Your task to perform on an android device: check out phone information Image 0: 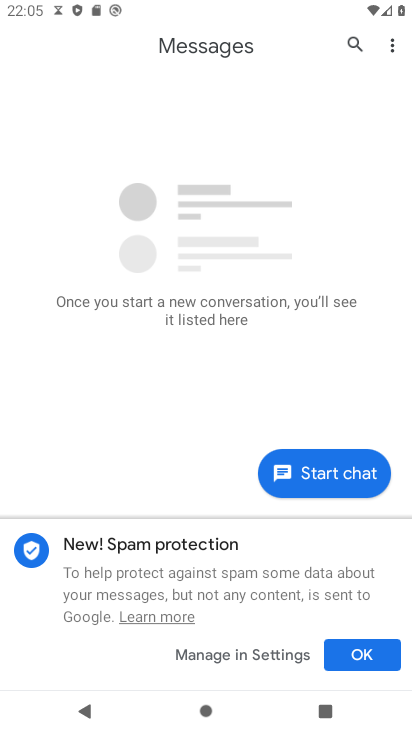
Step 0: press home button
Your task to perform on an android device: check out phone information Image 1: 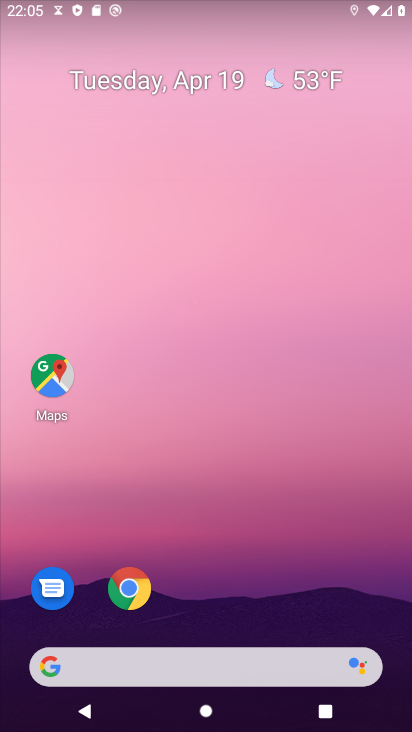
Step 1: drag from (216, 610) to (320, 88)
Your task to perform on an android device: check out phone information Image 2: 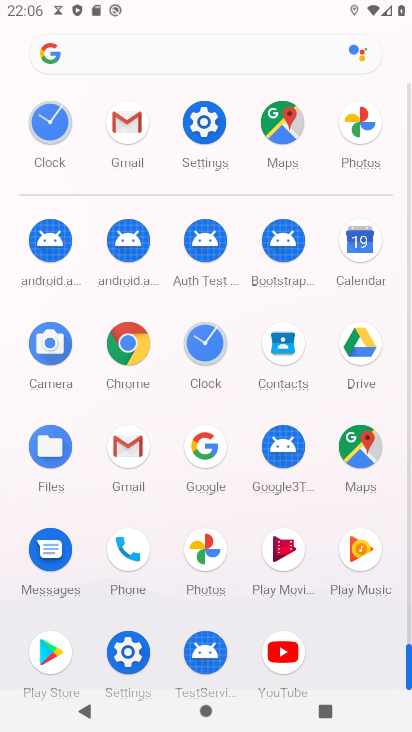
Step 2: click (202, 117)
Your task to perform on an android device: check out phone information Image 3: 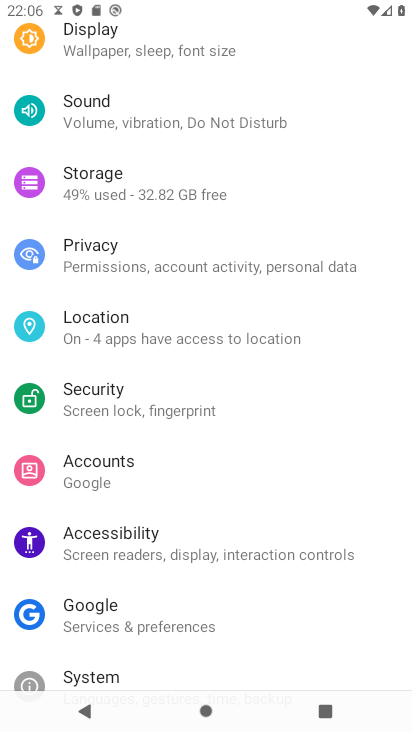
Step 3: drag from (171, 591) to (232, 435)
Your task to perform on an android device: check out phone information Image 4: 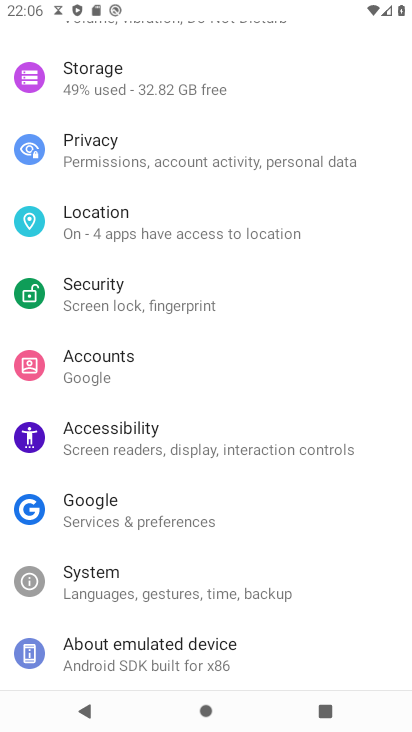
Step 4: click (130, 653)
Your task to perform on an android device: check out phone information Image 5: 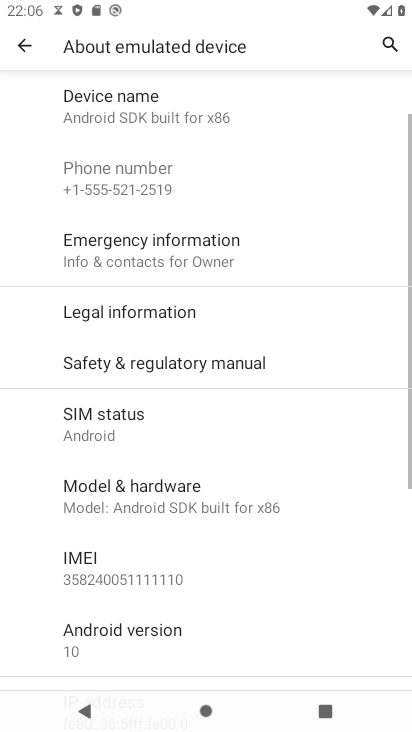
Step 5: task complete